Your task to perform on an android device: turn off wifi Image 0: 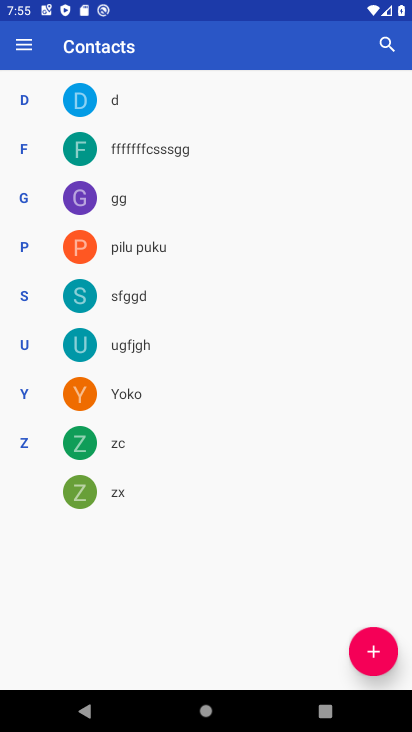
Step 0: press home button
Your task to perform on an android device: turn off wifi Image 1: 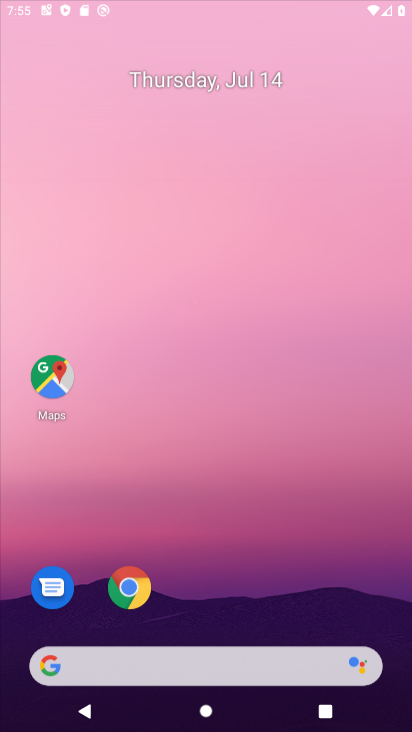
Step 1: drag from (391, 608) to (248, 132)
Your task to perform on an android device: turn off wifi Image 2: 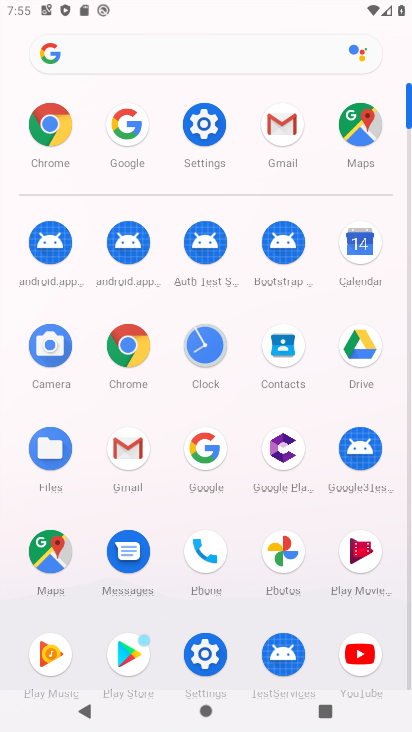
Step 2: drag from (166, 8) to (174, 538)
Your task to perform on an android device: turn off wifi Image 3: 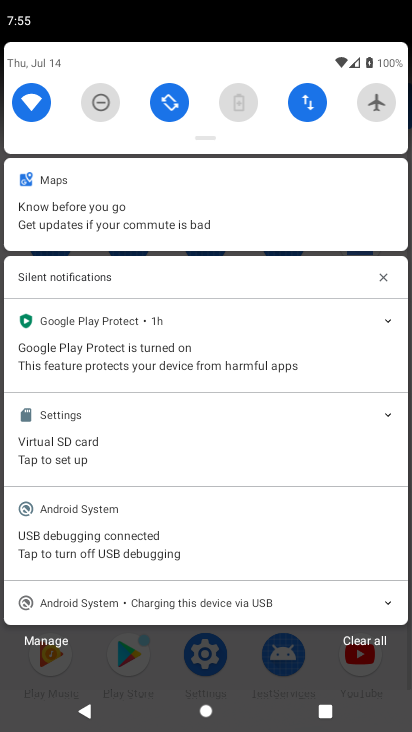
Step 3: click (30, 101)
Your task to perform on an android device: turn off wifi Image 4: 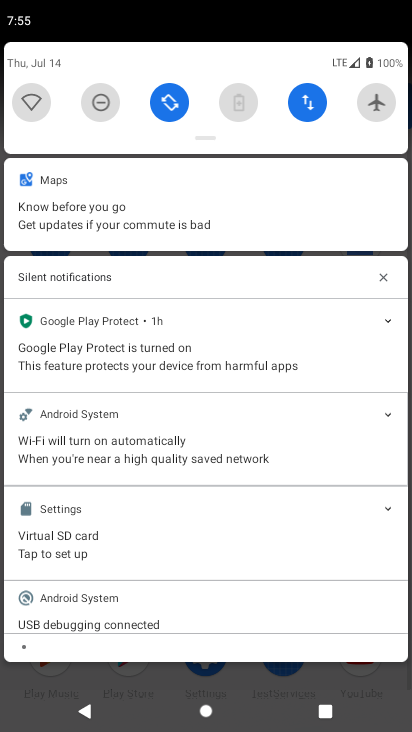
Step 4: task complete